Your task to perform on an android device: Open Youtube and go to the subscriptions tab Image 0: 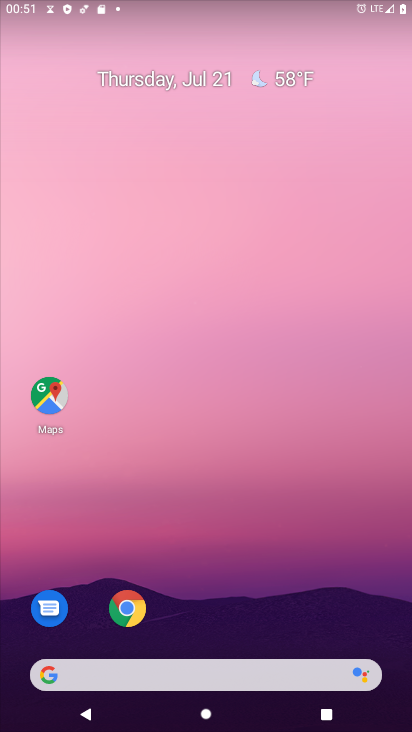
Step 0: drag from (214, 645) to (241, 5)
Your task to perform on an android device: Open Youtube and go to the subscriptions tab Image 1: 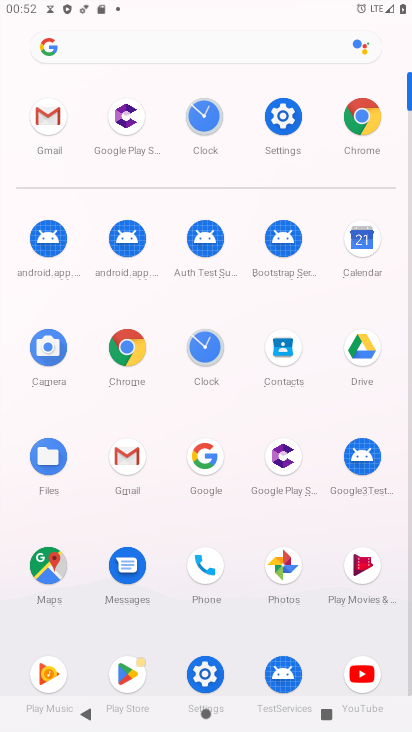
Step 1: click (360, 668)
Your task to perform on an android device: Open Youtube and go to the subscriptions tab Image 2: 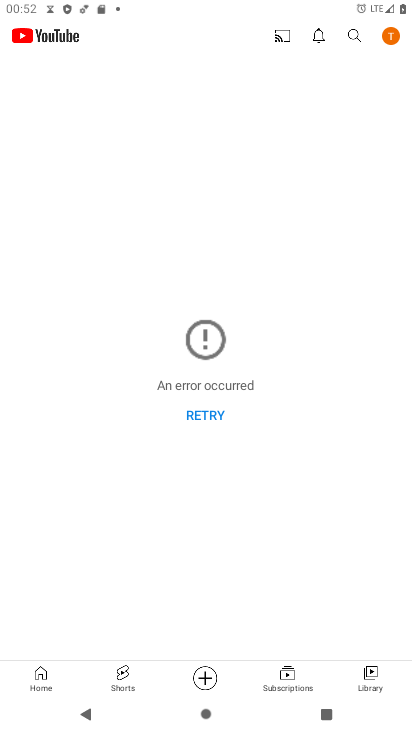
Step 2: click (284, 668)
Your task to perform on an android device: Open Youtube and go to the subscriptions tab Image 3: 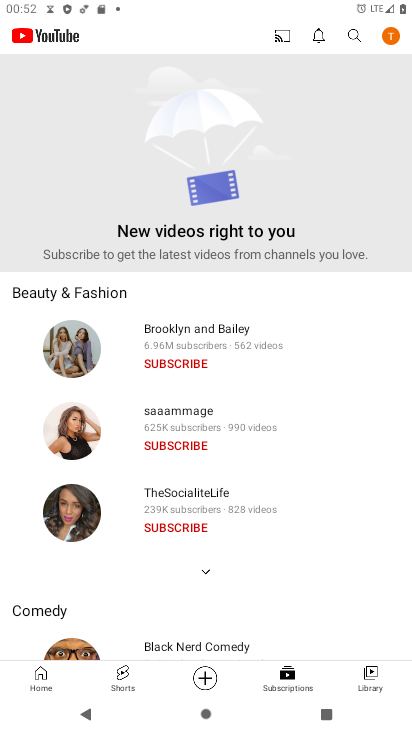
Step 3: task complete